Your task to perform on an android device: Open Youtube and go to the subscriptions tab Image 0: 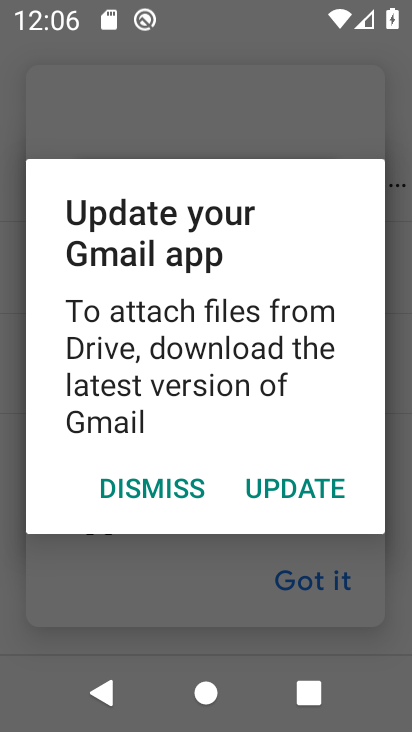
Step 0: press home button
Your task to perform on an android device: Open Youtube and go to the subscriptions tab Image 1: 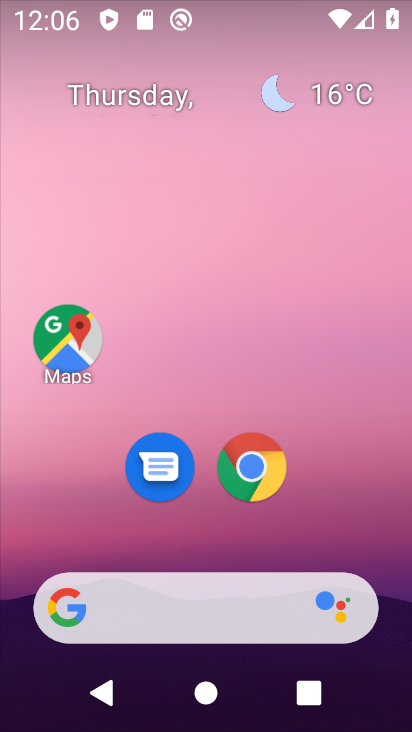
Step 1: drag from (202, 510) to (248, 9)
Your task to perform on an android device: Open Youtube and go to the subscriptions tab Image 2: 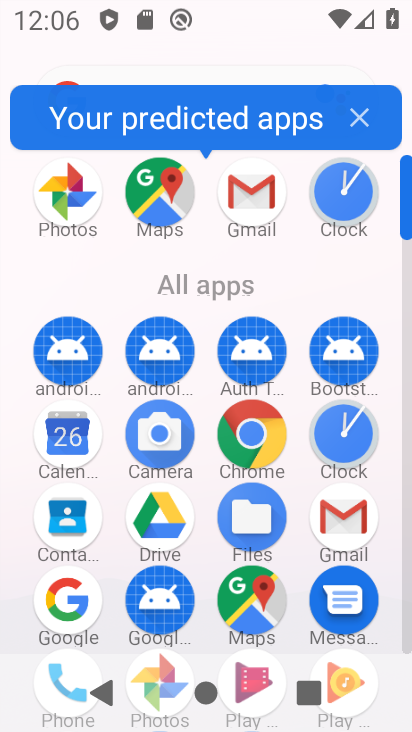
Step 2: drag from (280, 527) to (327, 98)
Your task to perform on an android device: Open Youtube and go to the subscriptions tab Image 3: 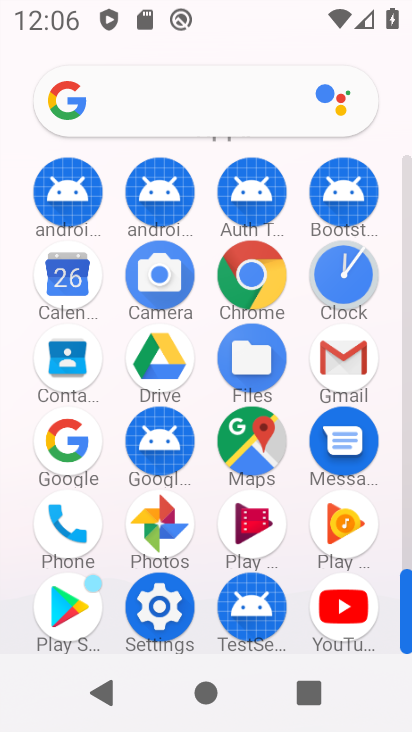
Step 3: click (365, 620)
Your task to perform on an android device: Open Youtube and go to the subscriptions tab Image 4: 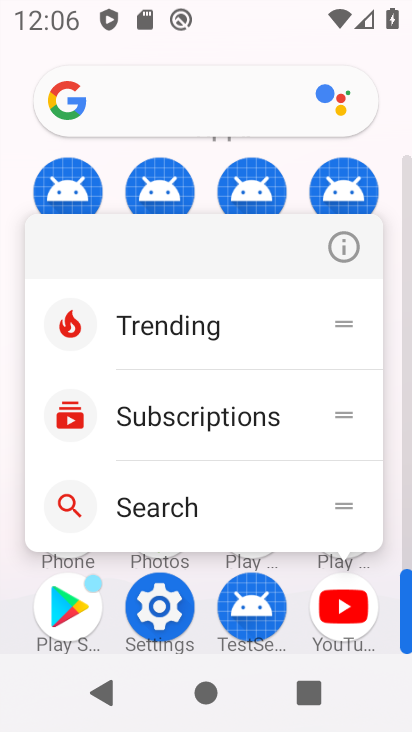
Step 4: click (359, 623)
Your task to perform on an android device: Open Youtube and go to the subscriptions tab Image 5: 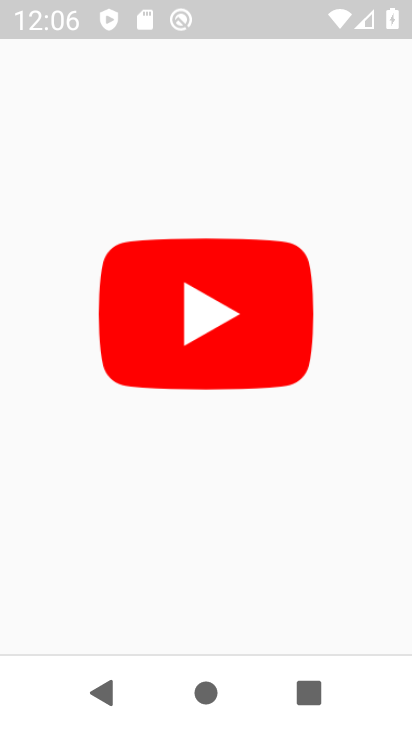
Step 5: click (358, 624)
Your task to perform on an android device: Open Youtube and go to the subscriptions tab Image 6: 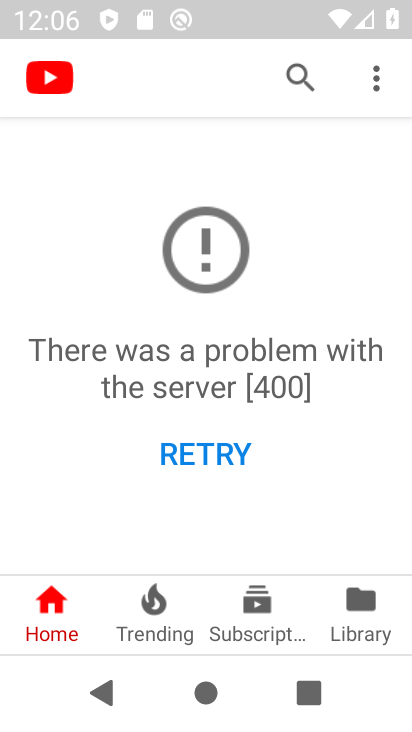
Step 6: click (245, 607)
Your task to perform on an android device: Open Youtube and go to the subscriptions tab Image 7: 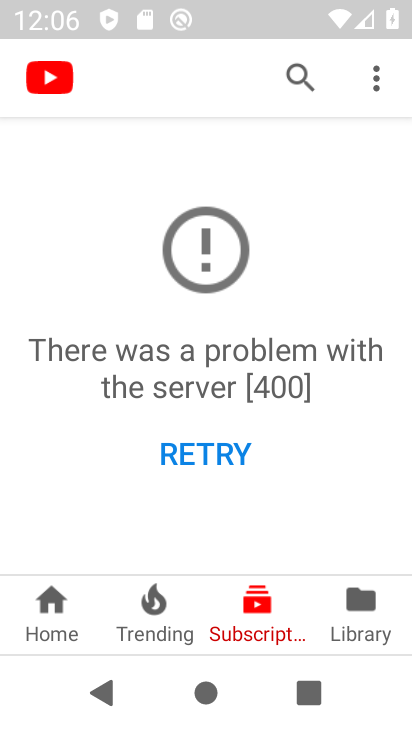
Step 7: task complete